Your task to perform on an android device: Open wifi settings Image 0: 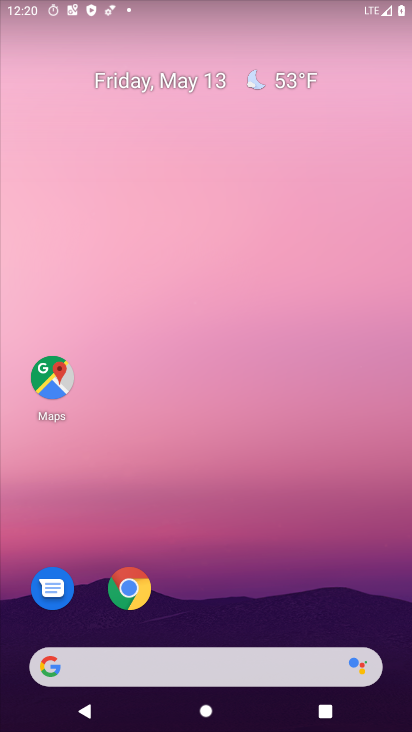
Step 0: drag from (237, 559) to (134, 7)
Your task to perform on an android device: Open wifi settings Image 1: 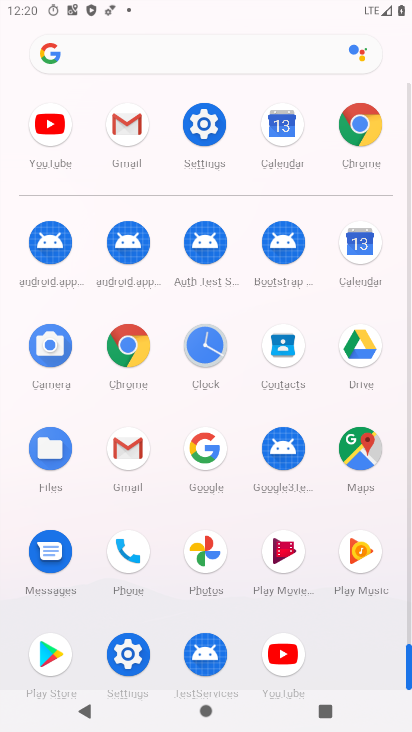
Step 1: click (196, 121)
Your task to perform on an android device: Open wifi settings Image 2: 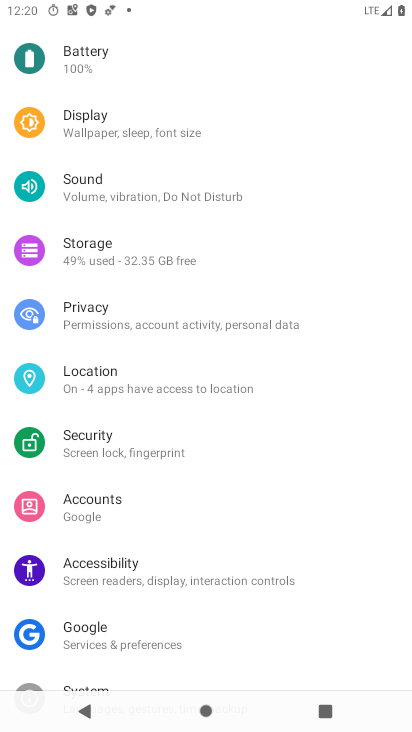
Step 2: drag from (229, 533) to (250, 629)
Your task to perform on an android device: Open wifi settings Image 3: 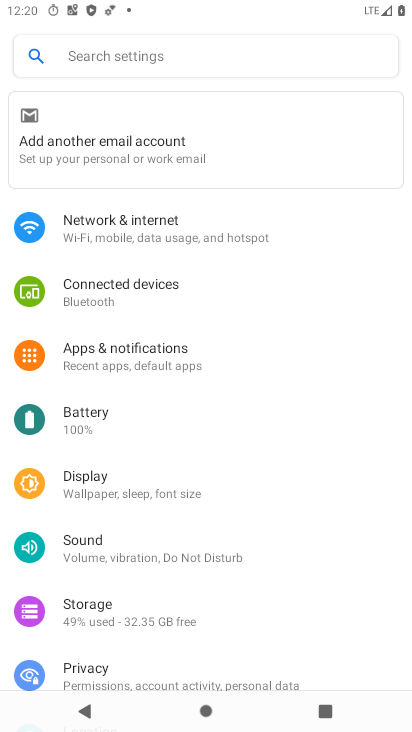
Step 3: click (162, 231)
Your task to perform on an android device: Open wifi settings Image 4: 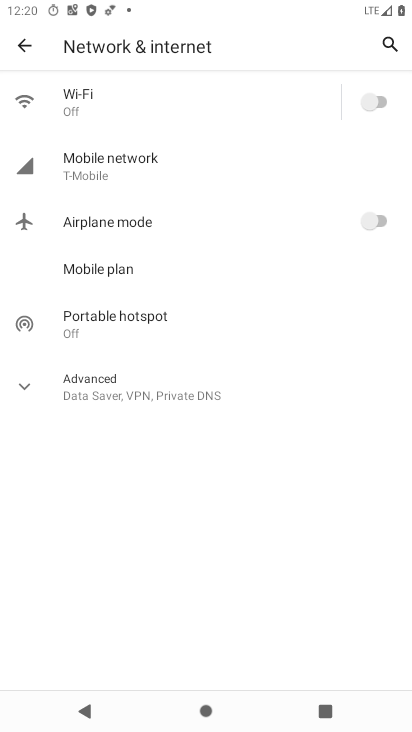
Step 4: click (132, 108)
Your task to perform on an android device: Open wifi settings Image 5: 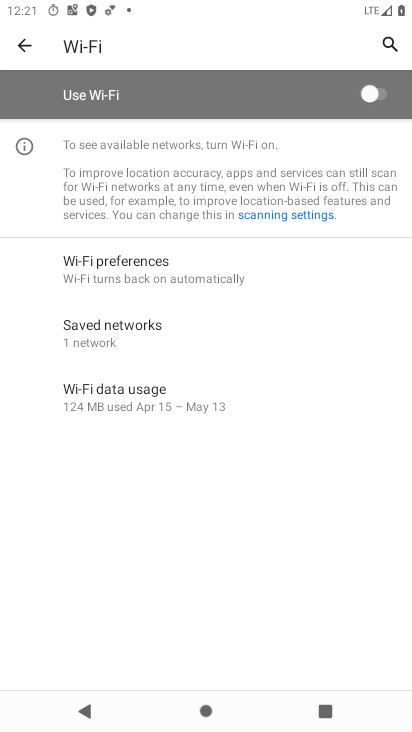
Step 5: task complete